Your task to perform on an android device: open app "Google Chrome" Image 0: 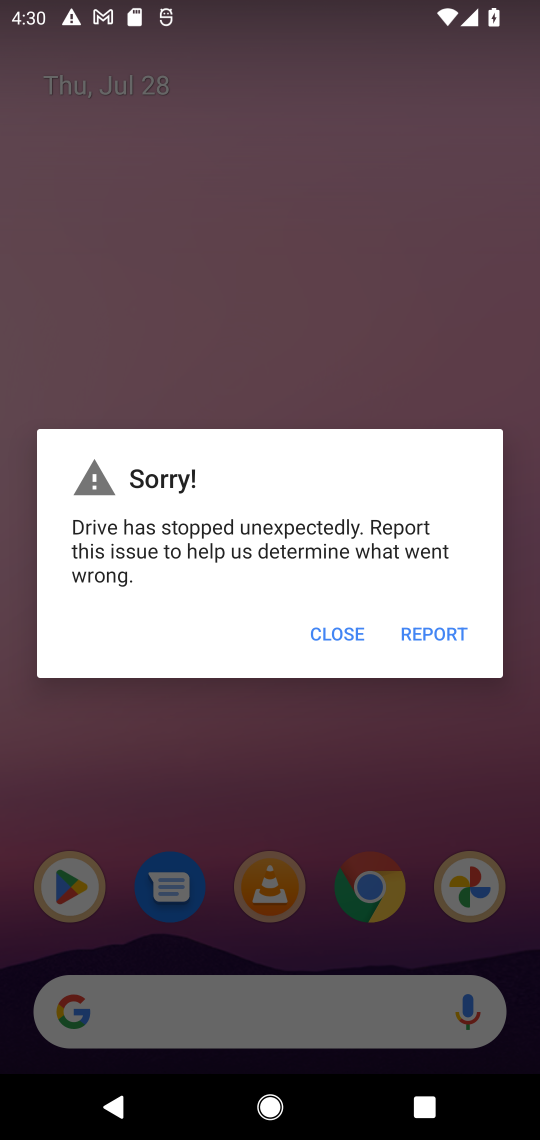
Step 0: click (334, 634)
Your task to perform on an android device: open app "Google Chrome" Image 1: 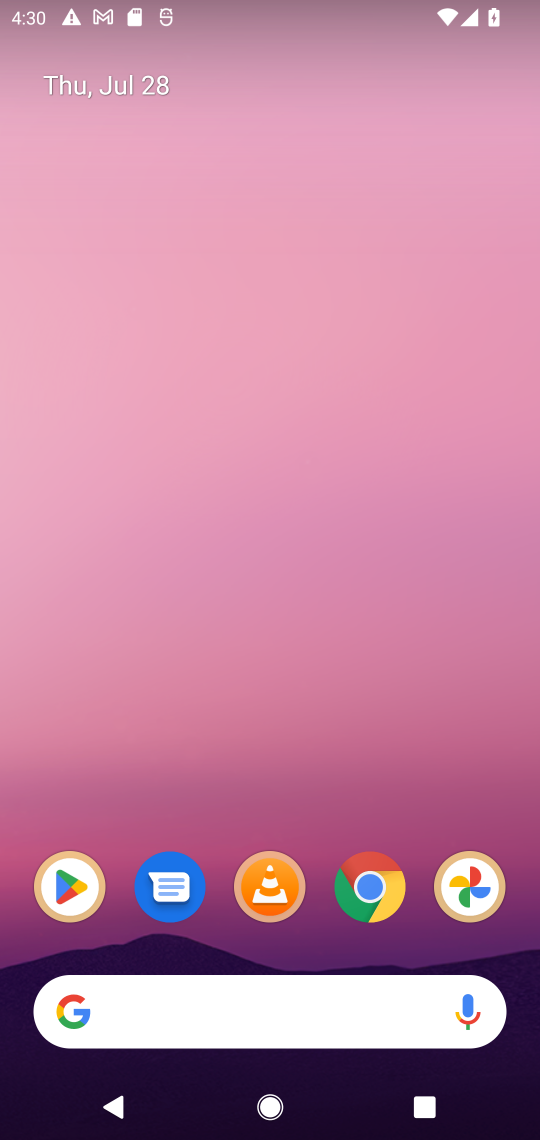
Step 1: click (371, 905)
Your task to perform on an android device: open app "Google Chrome" Image 2: 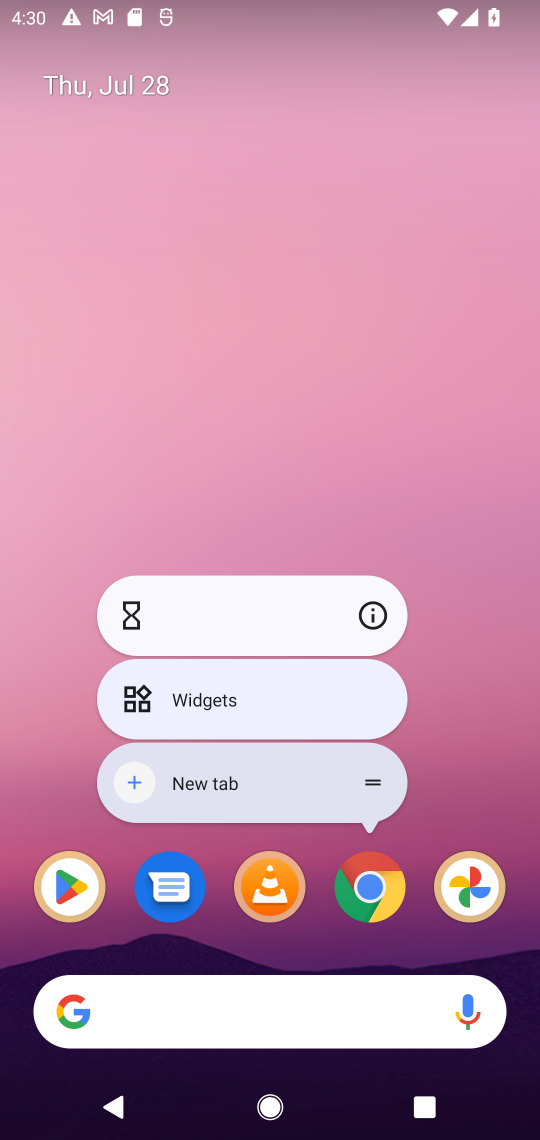
Step 2: click (348, 899)
Your task to perform on an android device: open app "Google Chrome" Image 3: 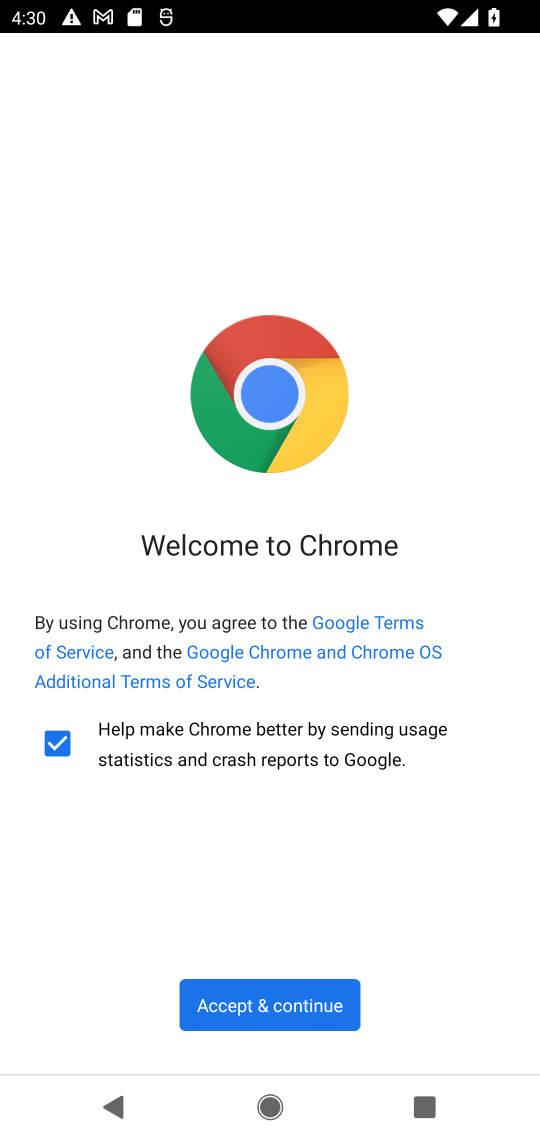
Step 3: click (302, 1001)
Your task to perform on an android device: open app "Google Chrome" Image 4: 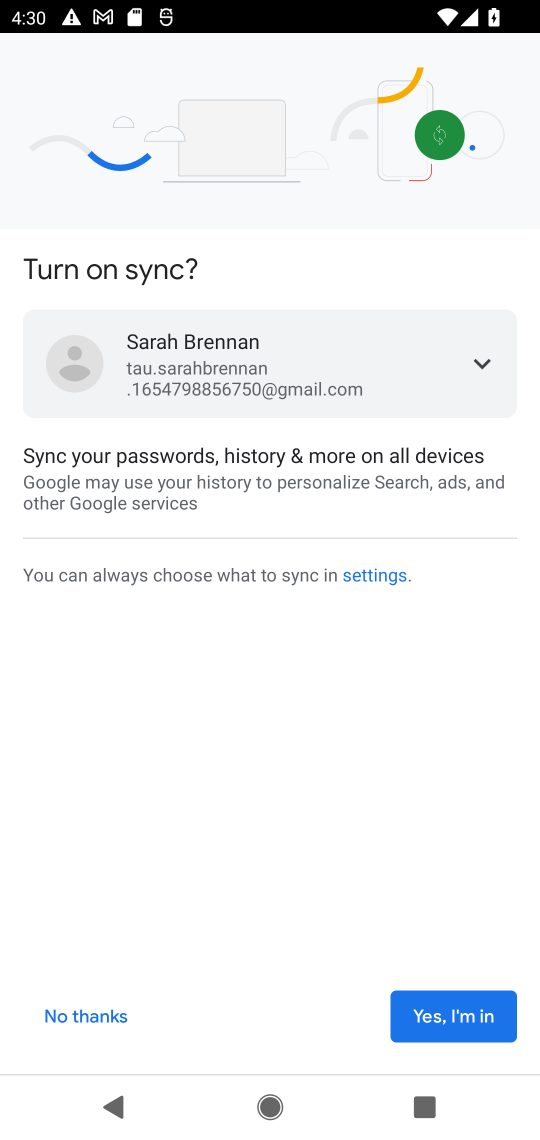
Step 4: click (427, 1029)
Your task to perform on an android device: open app "Google Chrome" Image 5: 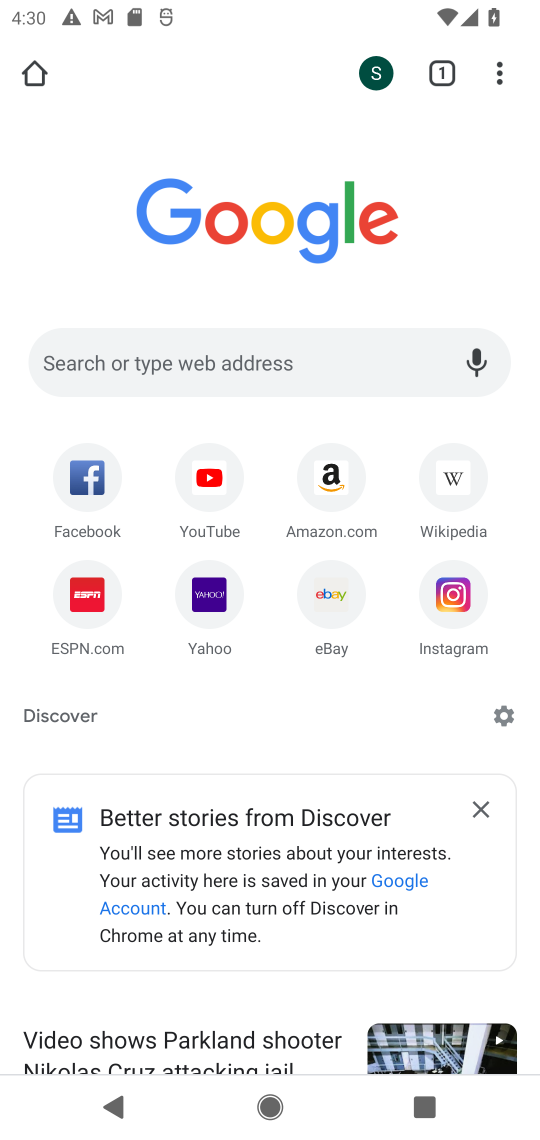
Step 5: task complete